Your task to perform on an android device: Go to Google Image 0: 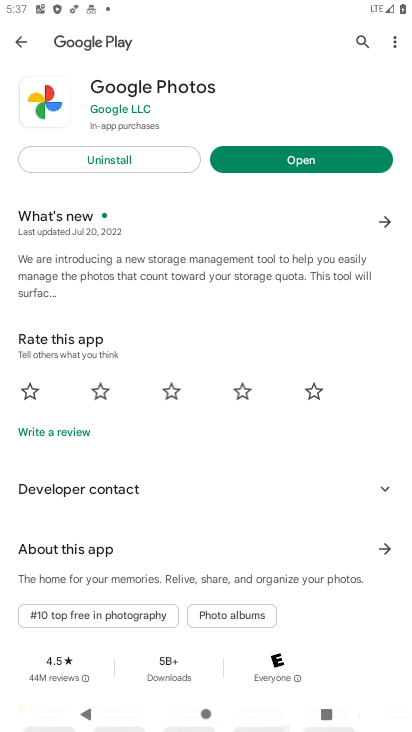
Step 0: press home button
Your task to perform on an android device: Go to Google Image 1: 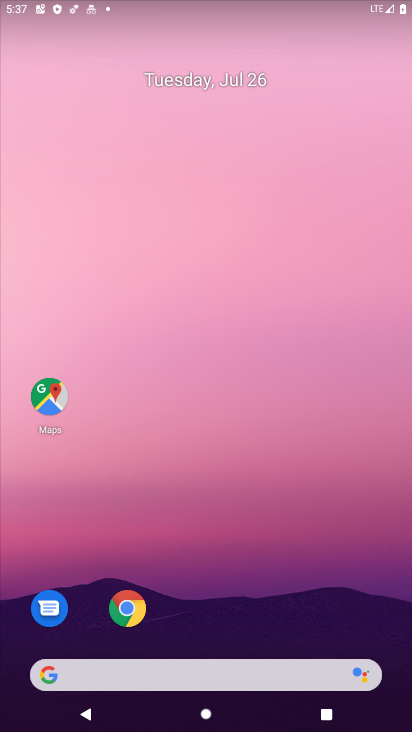
Step 1: click (53, 685)
Your task to perform on an android device: Go to Google Image 2: 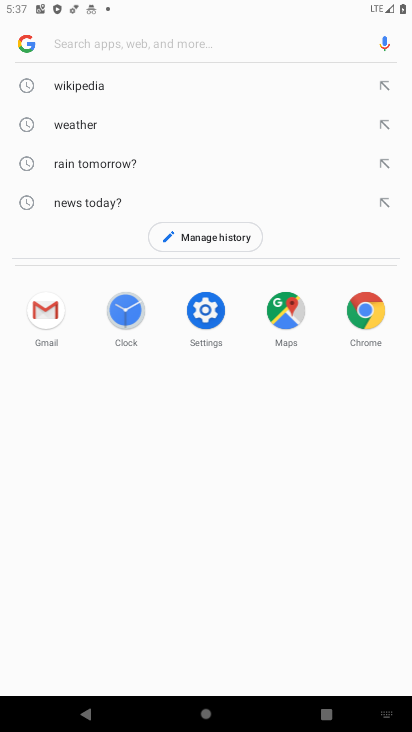
Step 2: task complete